Your task to perform on an android device: Check the settings for the Amazon Music app Image 0: 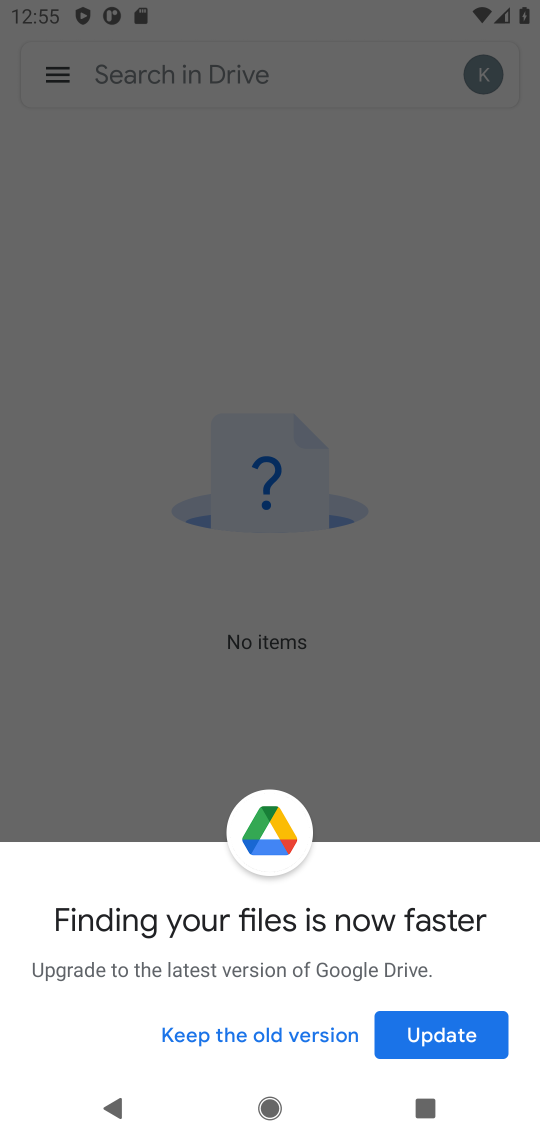
Step 0: press home button
Your task to perform on an android device: Check the settings for the Amazon Music app Image 1: 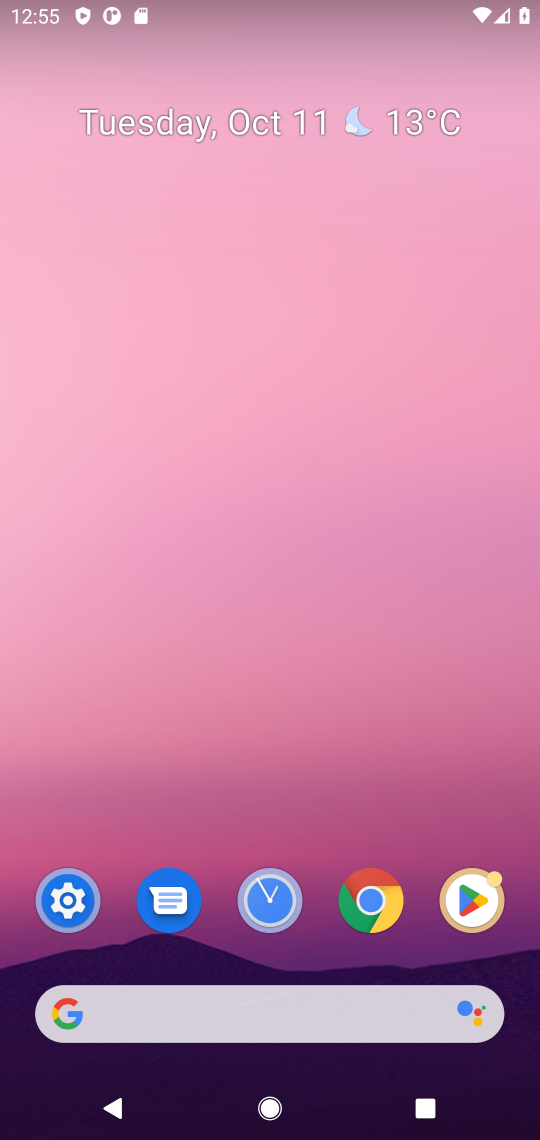
Step 1: click (463, 897)
Your task to perform on an android device: Check the settings for the Amazon Music app Image 2: 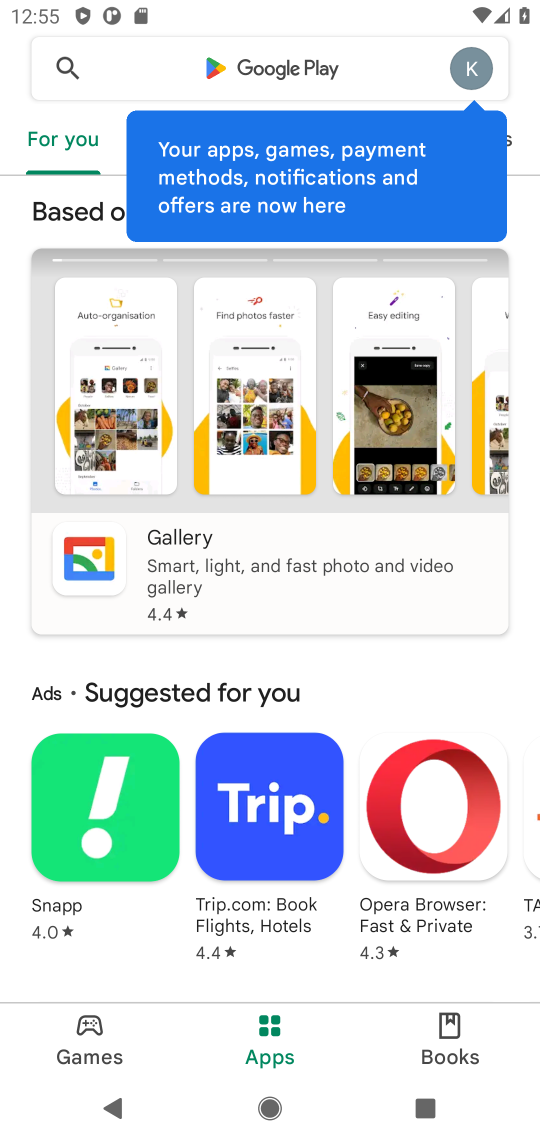
Step 2: click (323, 56)
Your task to perform on an android device: Check the settings for the Amazon Music app Image 3: 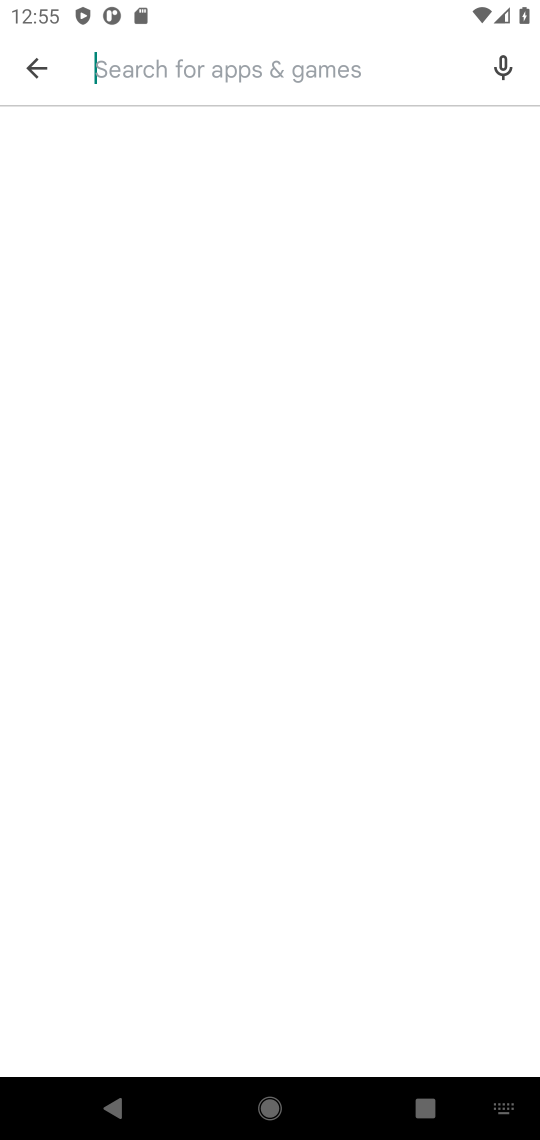
Step 3: type "amazon music app"
Your task to perform on an android device: Check the settings for the Amazon Music app Image 4: 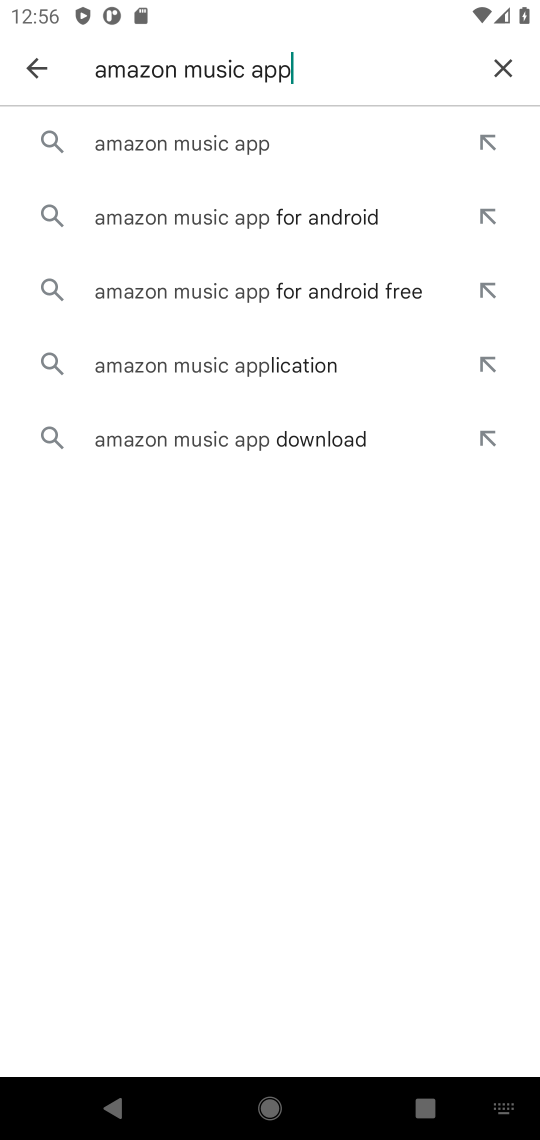
Step 4: click (238, 129)
Your task to perform on an android device: Check the settings for the Amazon Music app Image 5: 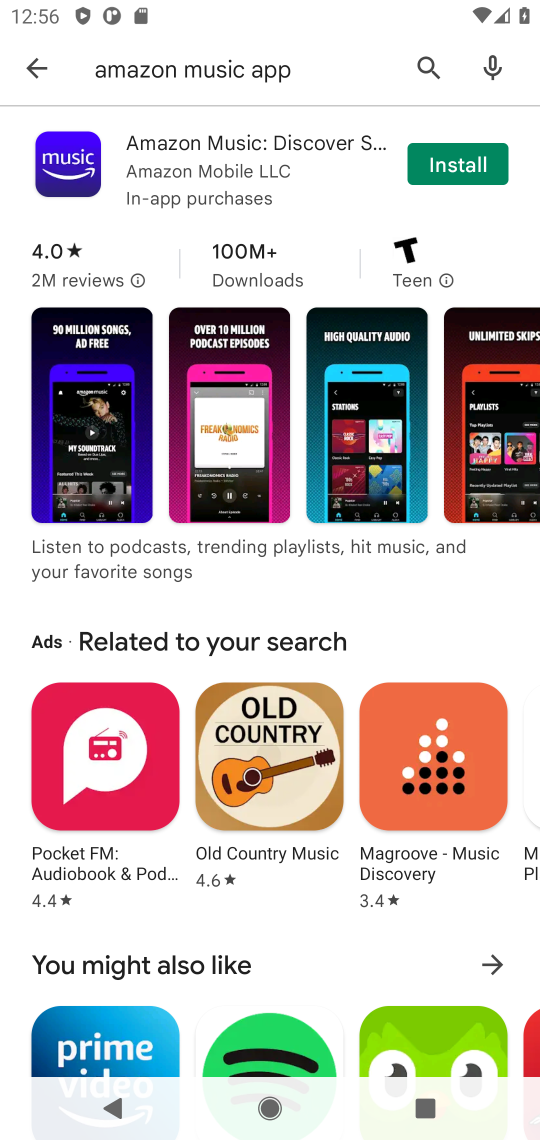
Step 5: task complete